Your task to perform on an android device: uninstall "LiveIn - Share Your Moment" Image 0: 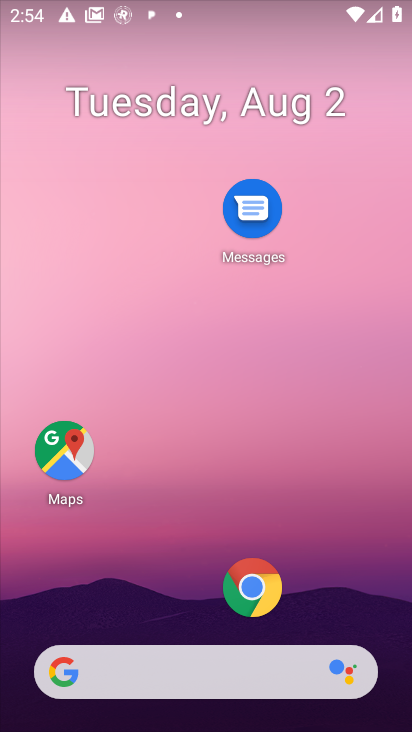
Step 0: drag from (193, 611) to (199, 198)
Your task to perform on an android device: uninstall "LiveIn - Share Your Moment" Image 1: 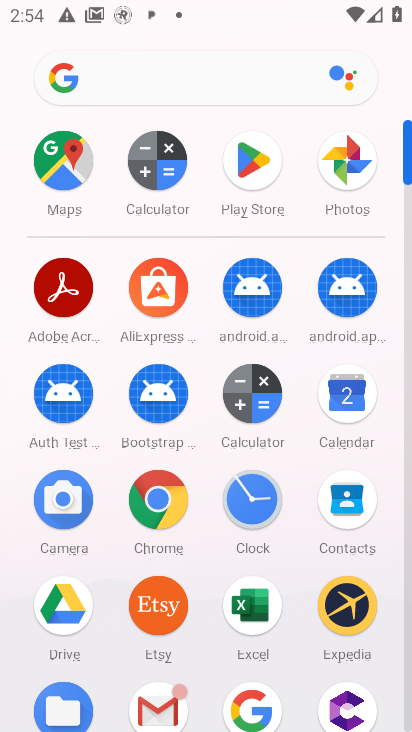
Step 1: click (274, 174)
Your task to perform on an android device: uninstall "LiveIn - Share Your Moment" Image 2: 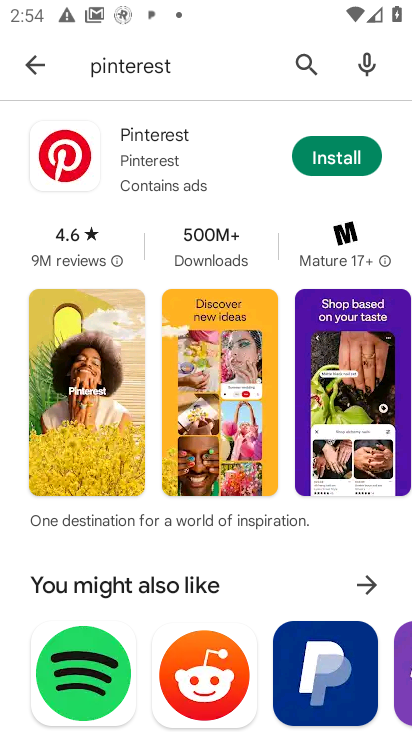
Step 2: click (301, 58)
Your task to perform on an android device: uninstall "LiveIn - Share Your Moment" Image 3: 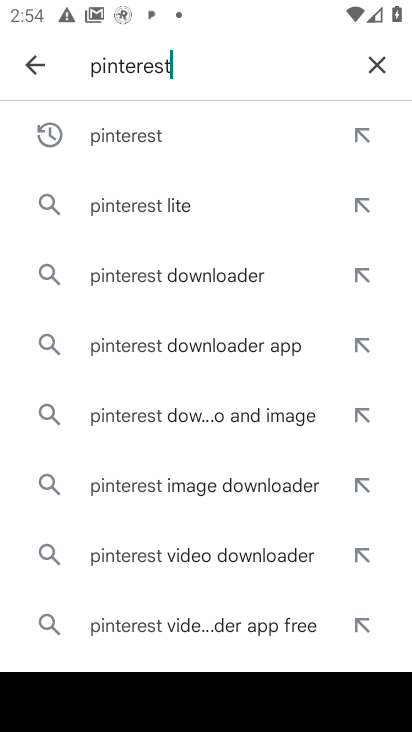
Step 3: click (367, 72)
Your task to perform on an android device: uninstall "LiveIn - Share Your Moment" Image 4: 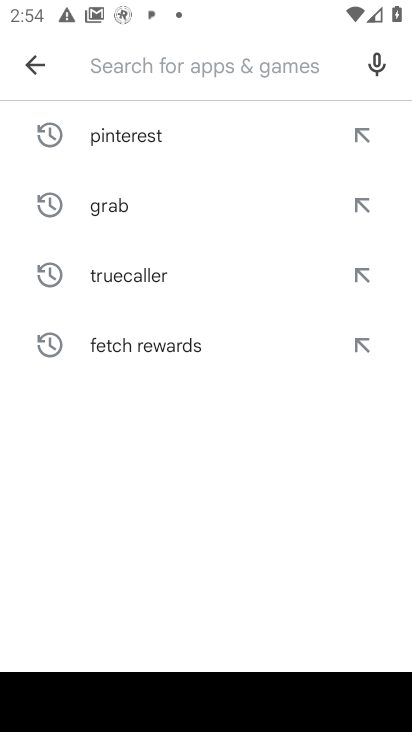
Step 4: type "LiveIn - Share Your Moment"
Your task to perform on an android device: uninstall "LiveIn - Share Your Moment" Image 5: 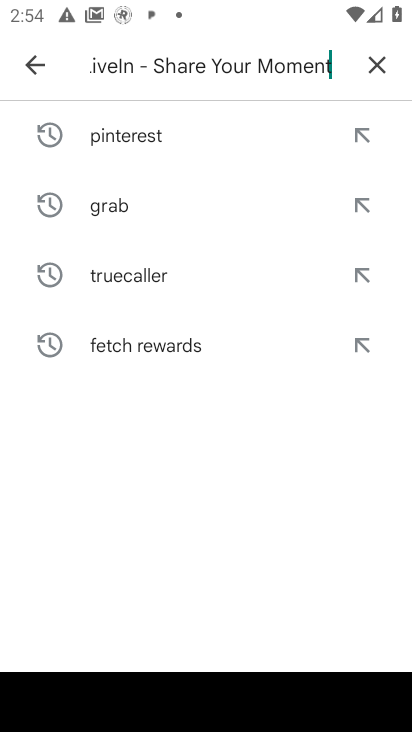
Step 5: type ""
Your task to perform on an android device: uninstall "LiveIn - Share Your Moment" Image 6: 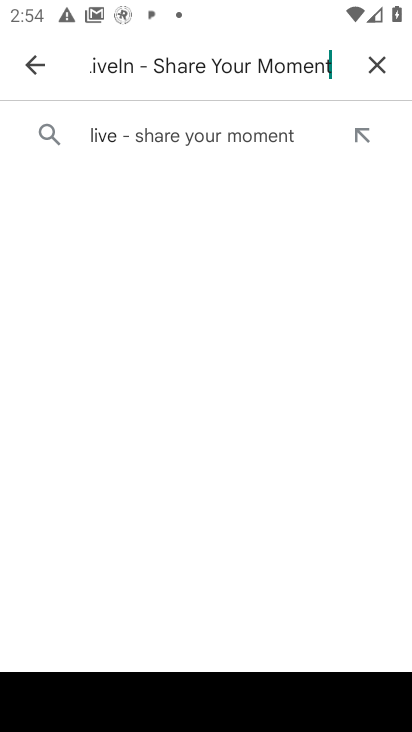
Step 6: click (237, 136)
Your task to perform on an android device: uninstall "LiveIn - Share Your Moment" Image 7: 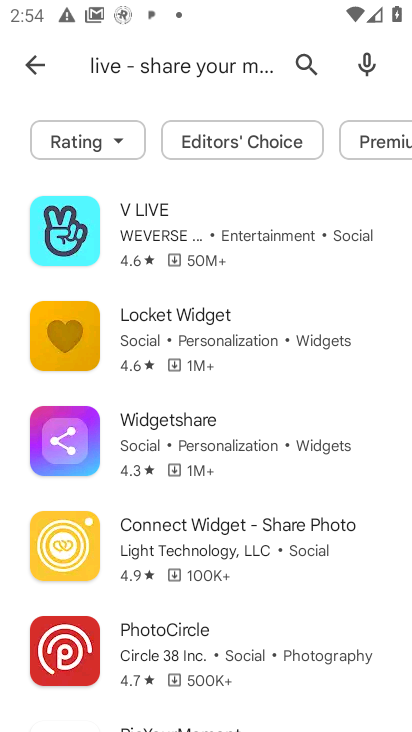
Step 7: task complete